Your task to perform on an android device: turn on the 12-hour format for clock Image 0: 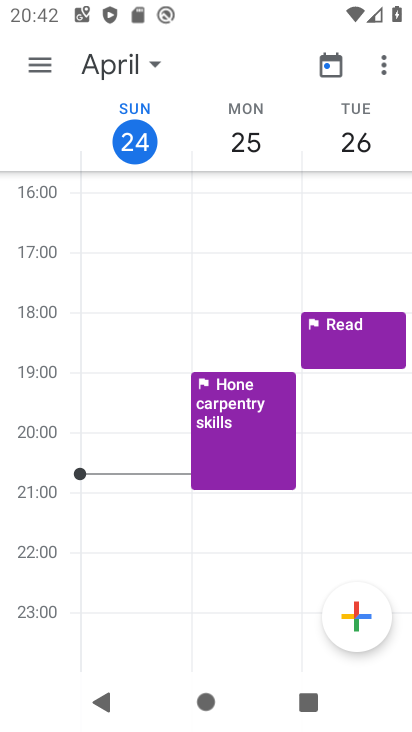
Step 0: press home button
Your task to perform on an android device: turn on the 12-hour format for clock Image 1: 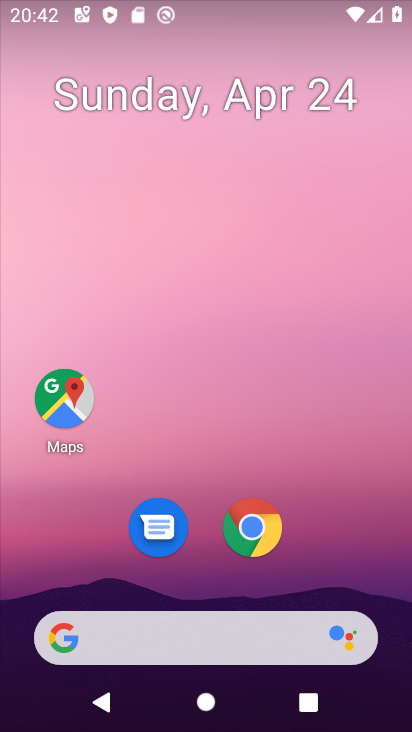
Step 1: drag from (330, 438) to (300, 27)
Your task to perform on an android device: turn on the 12-hour format for clock Image 2: 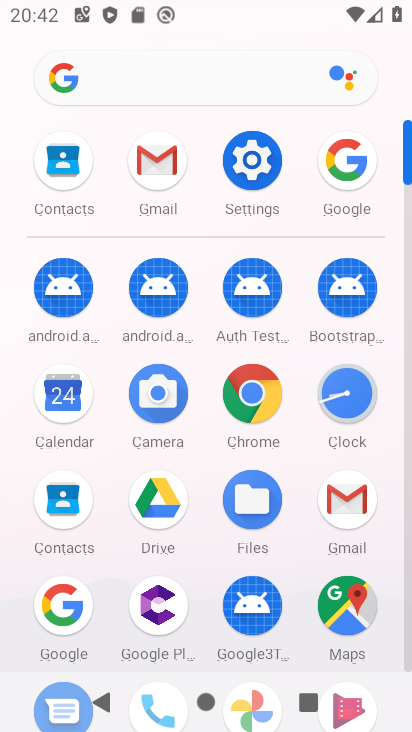
Step 2: click (339, 398)
Your task to perform on an android device: turn on the 12-hour format for clock Image 3: 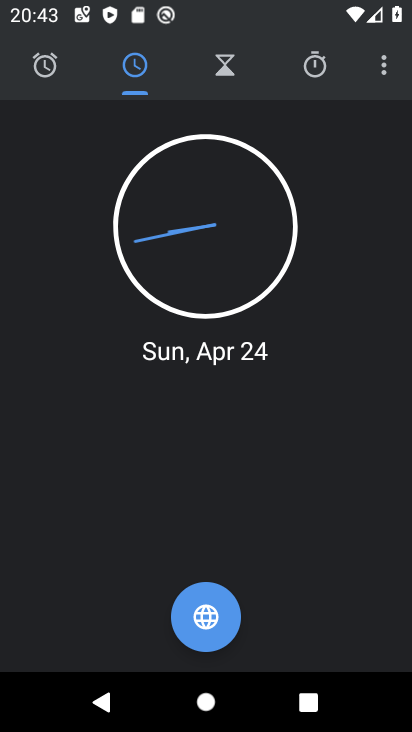
Step 3: click (392, 66)
Your task to perform on an android device: turn on the 12-hour format for clock Image 4: 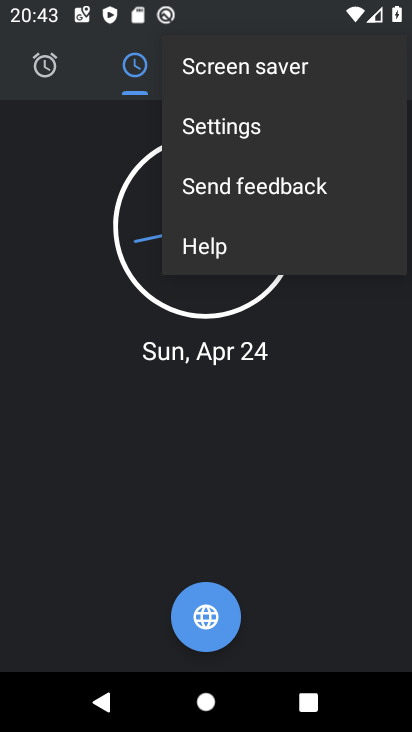
Step 4: click (252, 138)
Your task to perform on an android device: turn on the 12-hour format for clock Image 5: 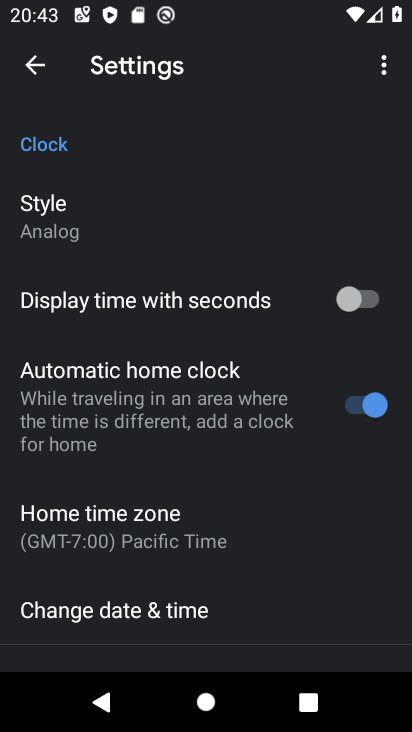
Step 5: click (115, 621)
Your task to perform on an android device: turn on the 12-hour format for clock Image 6: 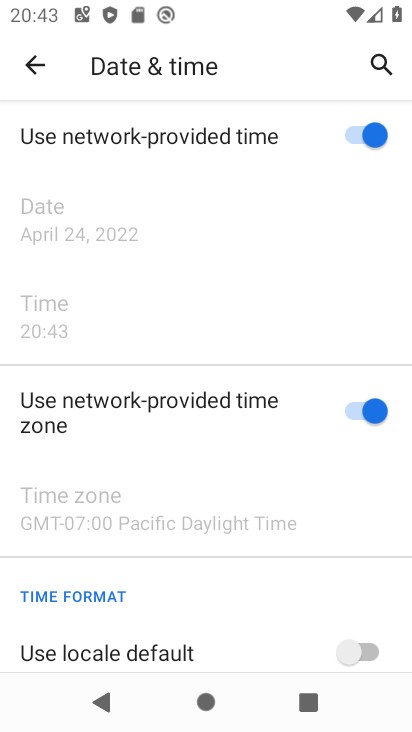
Step 6: drag from (217, 599) to (207, 203)
Your task to perform on an android device: turn on the 12-hour format for clock Image 7: 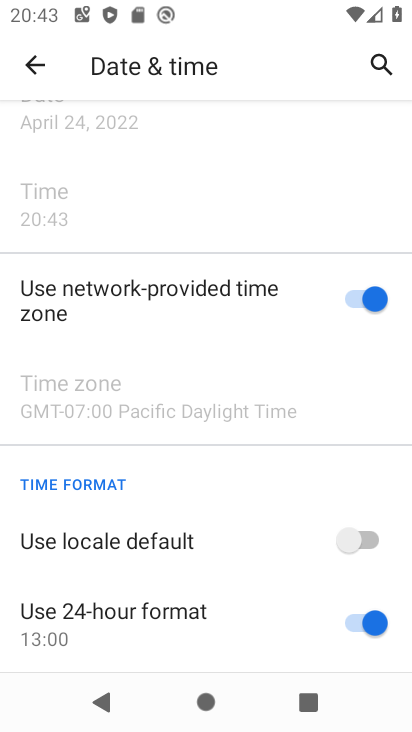
Step 7: click (366, 539)
Your task to perform on an android device: turn on the 12-hour format for clock Image 8: 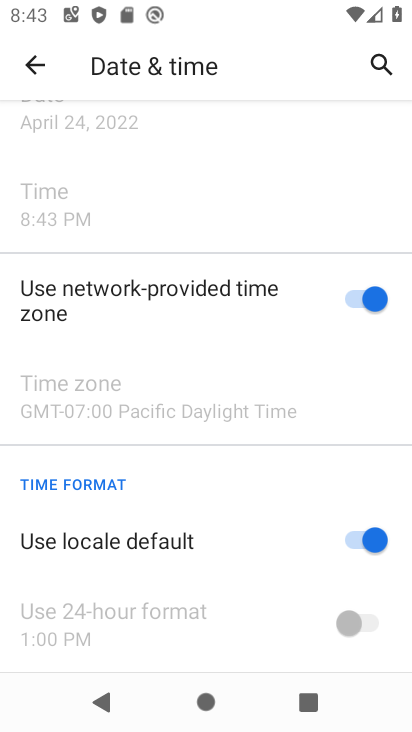
Step 8: task complete